Your task to perform on an android device: turn notification dots off Image 0: 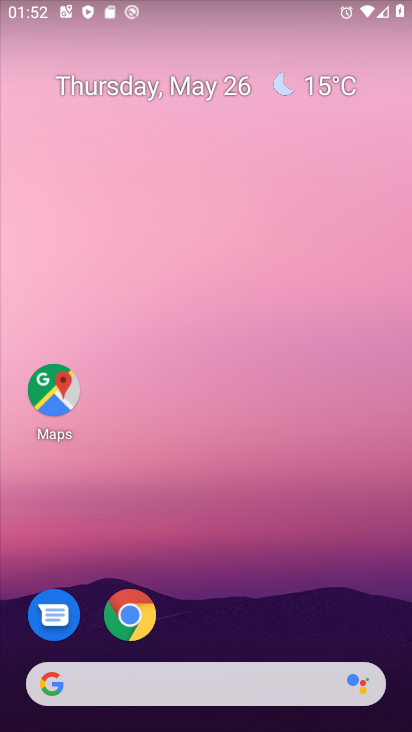
Step 0: drag from (225, 600) to (295, 96)
Your task to perform on an android device: turn notification dots off Image 1: 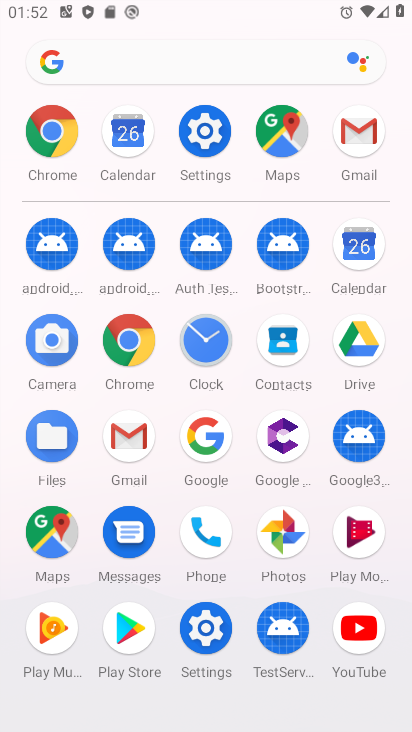
Step 1: click (210, 129)
Your task to perform on an android device: turn notification dots off Image 2: 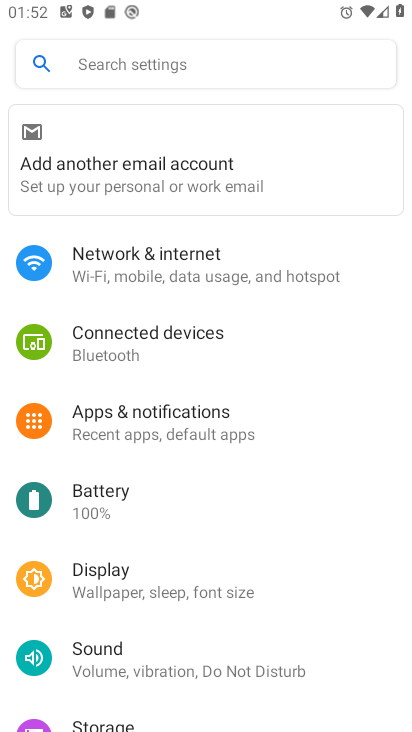
Step 2: click (155, 433)
Your task to perform on an android device: turn notification dots off Image 3: 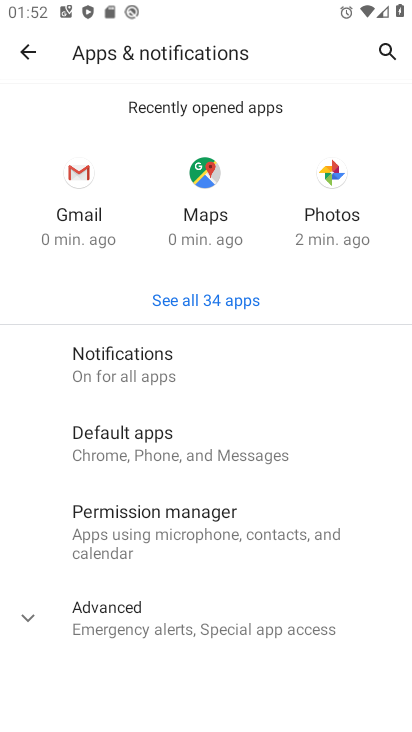
Step 3: click (117, 338)
Your task to perform on an android device: turn notification dots off Image 4: 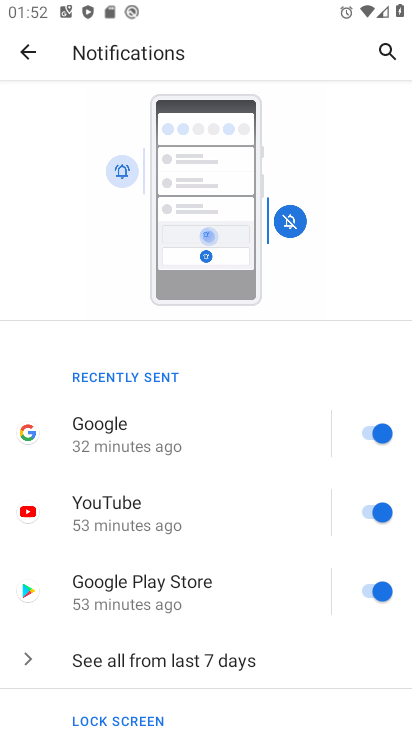
Step 4: drag from (127, 637) to (211, 310)
Your task to perform on an android device: turn notification dots off Image 5: 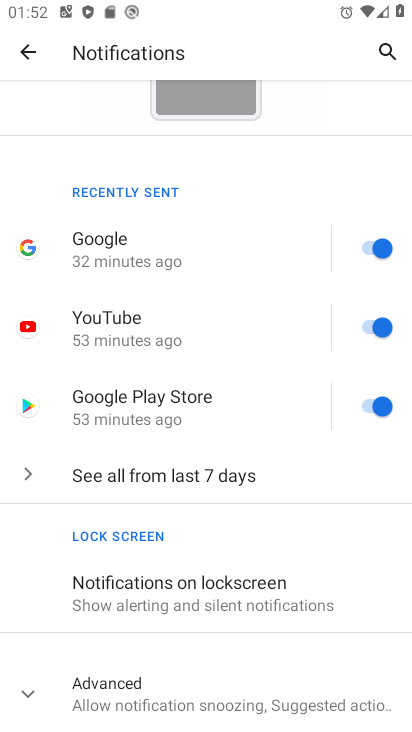
Step 5: click (237, 685)
Your task to perform on an android device: turn notification dots off Image 6: 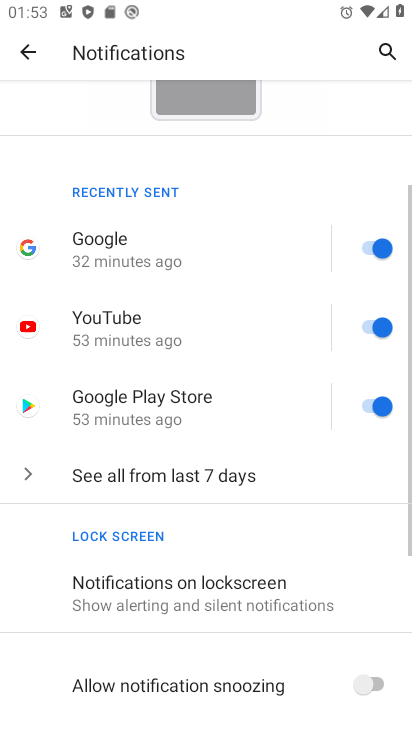
Step 6: task complete